Your task to perform on an android device: Play the last video I watched on Youtube Image 0: 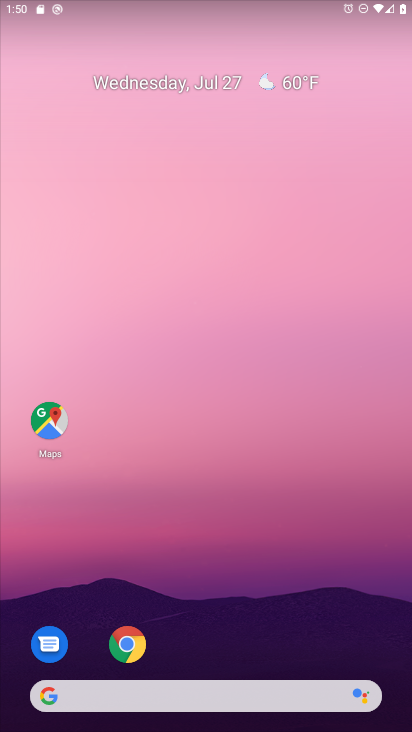
Step 0: drag from (228, 635) to (392, 2)
Your task to perform on an android device: Play the last video I watched on Youtube Image 1: 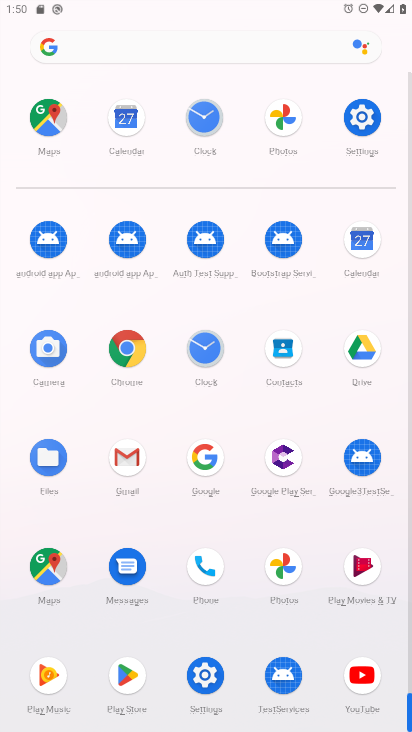
Step 1: click (360, 674)
Your task to perform on an android device: Play the last video I watched on Youtube Image 2: 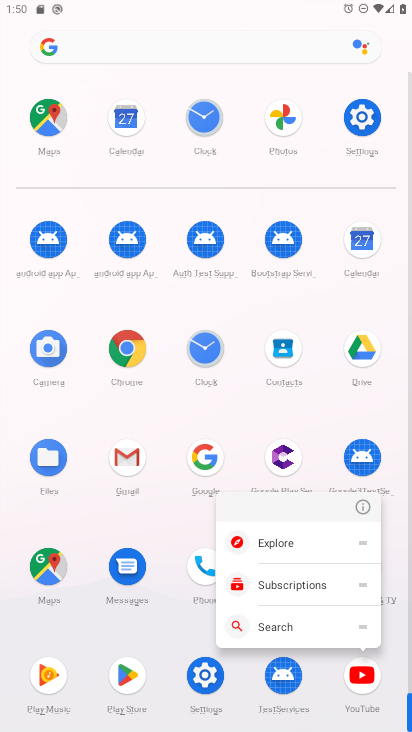
Step 2: click (362, 499)
Your task to perform on an android device: Play the last video I watched on Youtube Image 3: 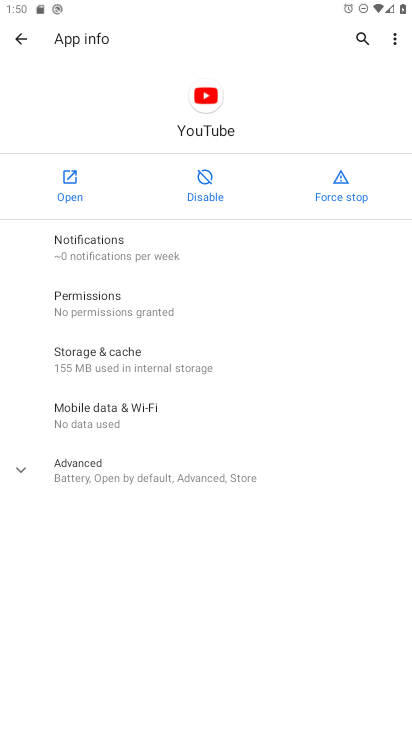
Step 3: click (61, 181)
Your task to perform on an android device: Play the last video I watched on Youtube Image 4: 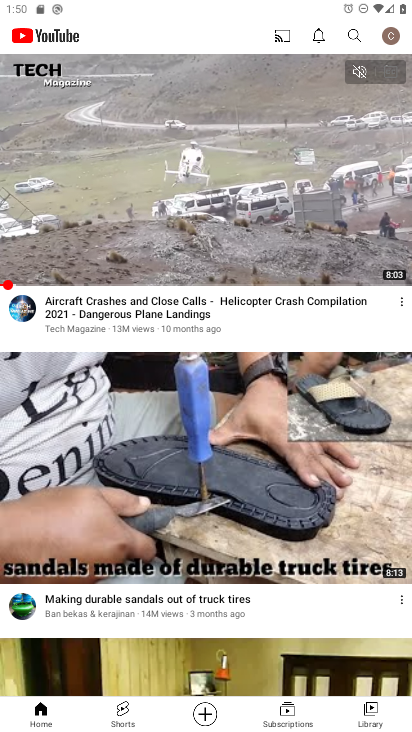
Step 4: click (364, 709)
Your task to perform on an android device: Play the last video I watched on Youtube Image 5: 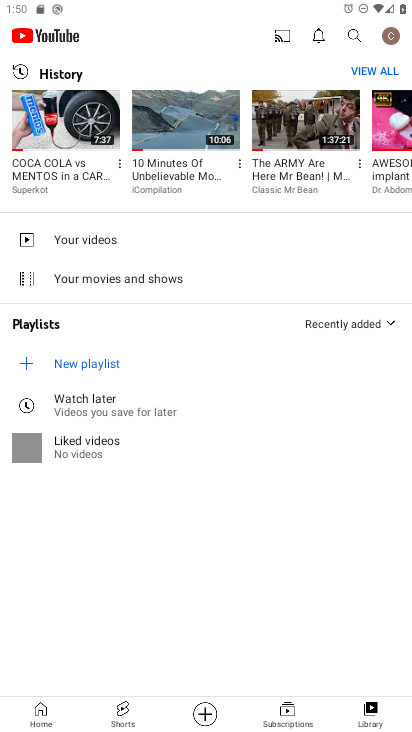
Step 5: click (51, 106)
Your task to perform on an android device: Play the last video I watched on Youtube Image 6: 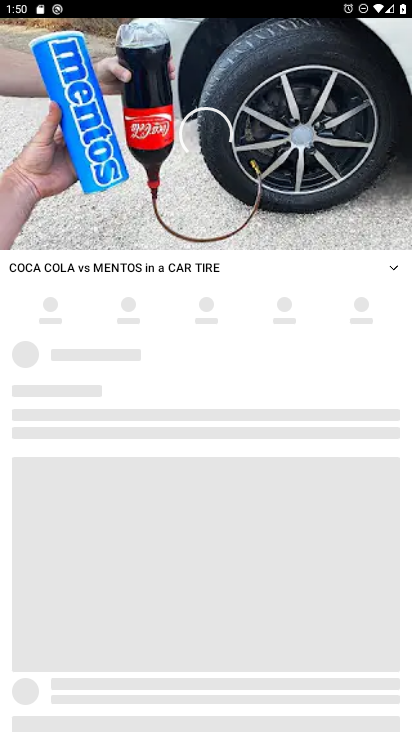
Step 6: task complete